Your task to perform on an android device: Open the web browser Image 0: 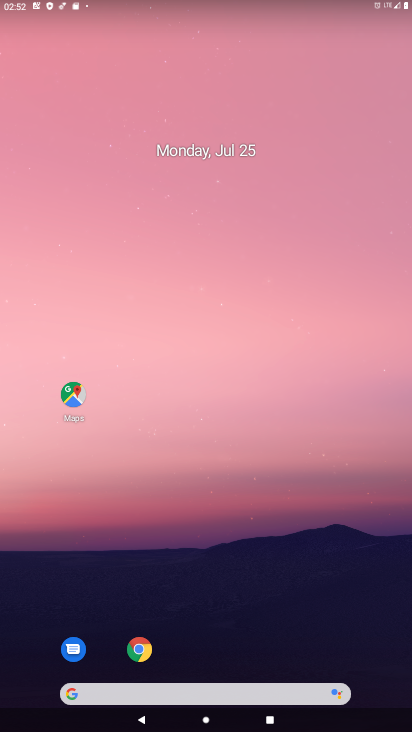
Step 0: click (137, 650)
Your task to perform on an android device: Open the web browser Image 1: 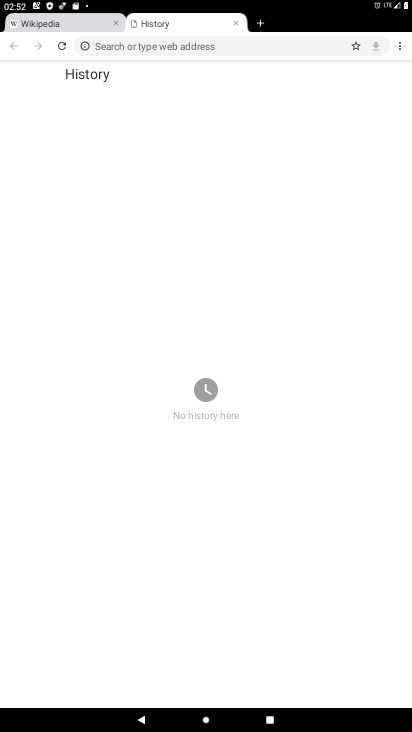
Step 1: task complete